Your task to perform on an android device: Go to settings Image 0: 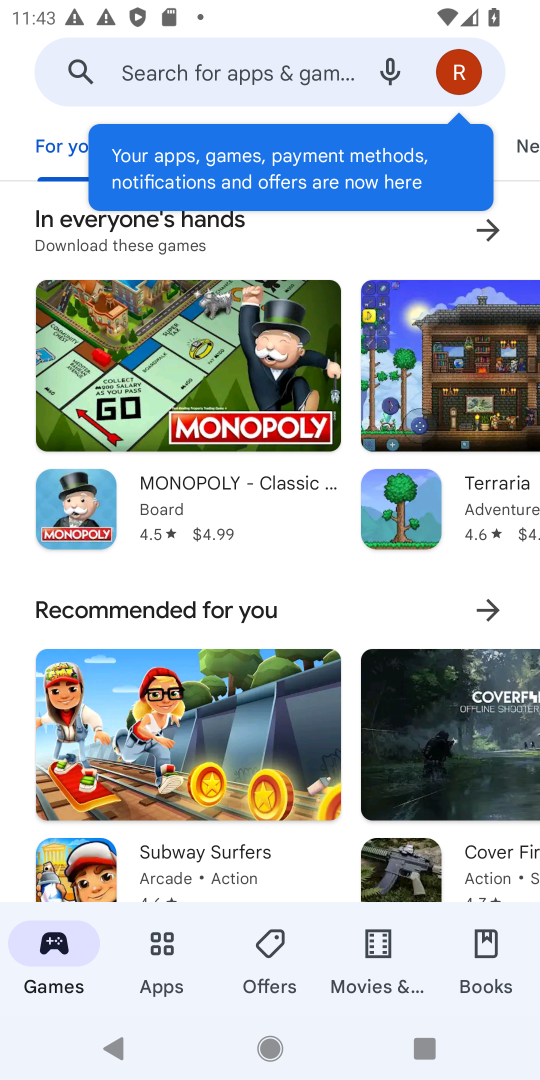
Step 0: press home button
Your task to perform on an android device: Go to settings Image 1: 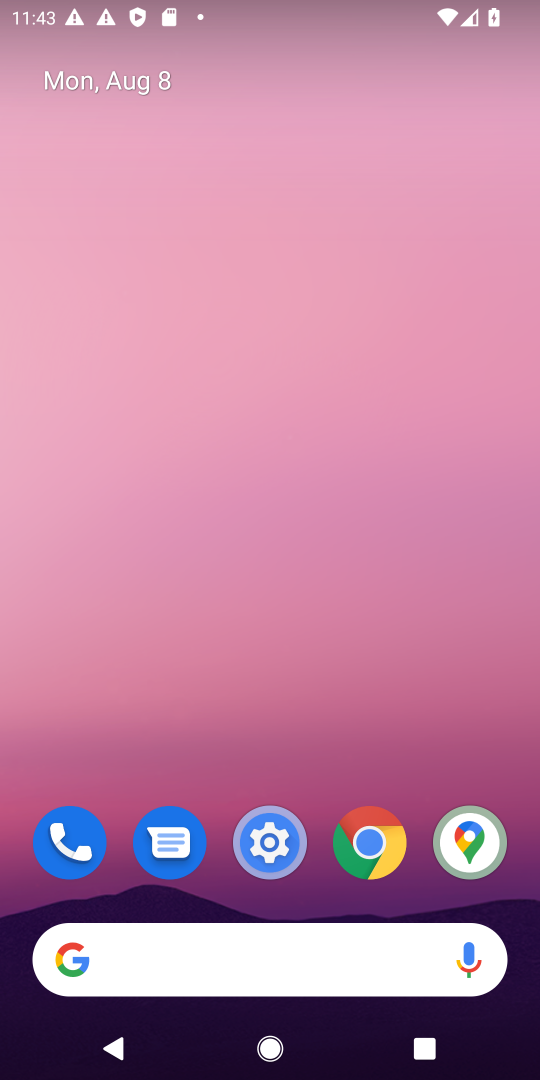
Step 1: click (263, 833)
Your task to perform on an android device: Go to settings Image 2: 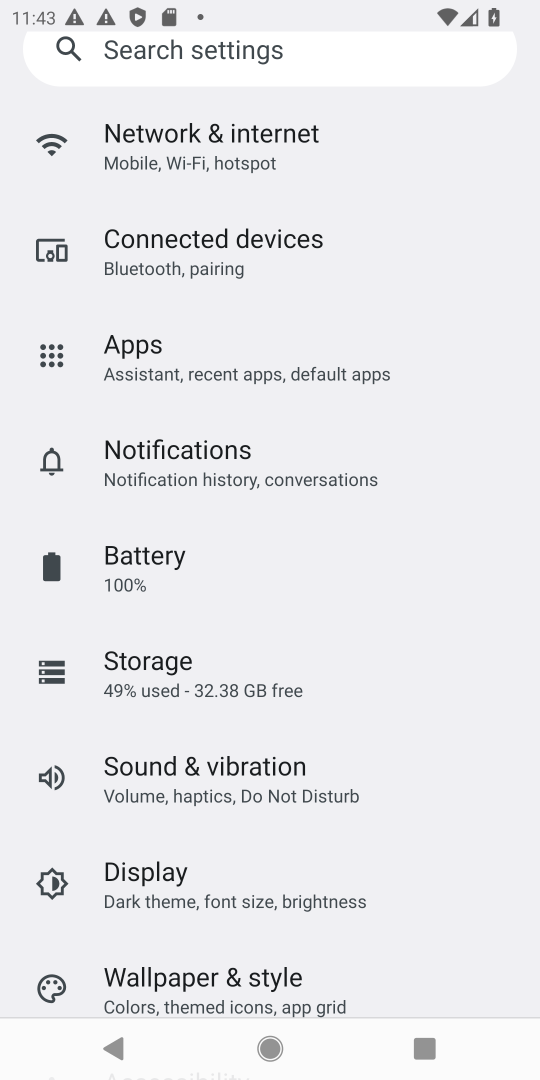
Step 2: task complete